Your task to perform on an android device: Search for Italian restaurants on Maps Image 0: 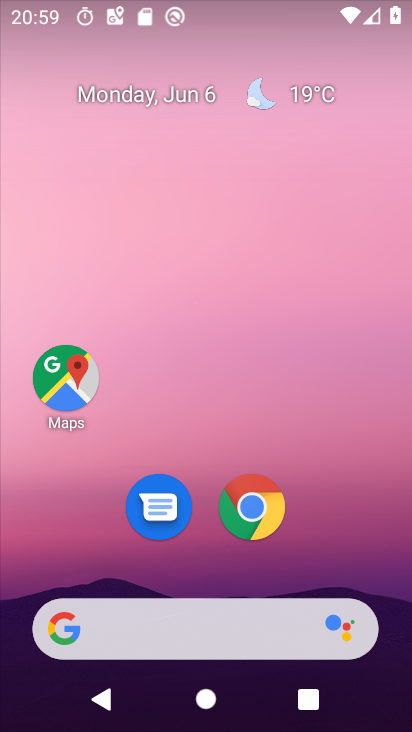
Step 0: press home button
Your task to perform on an android device: Search for Italian restaurants on Maps Image 1: 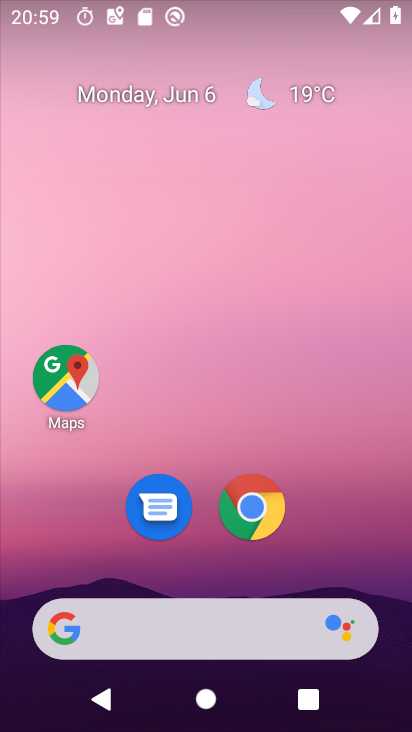
Step 1: click (68, 370)
Your task to perform on an android device: Search for Italian restaurants on Maps Image 2: 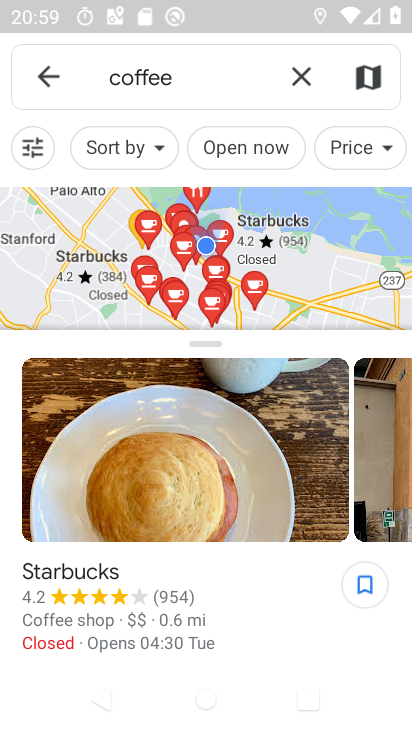
Step 2: click (311, 68)
Your task to perform on an android device: Search for Italian restaurants on Maps Image 3: 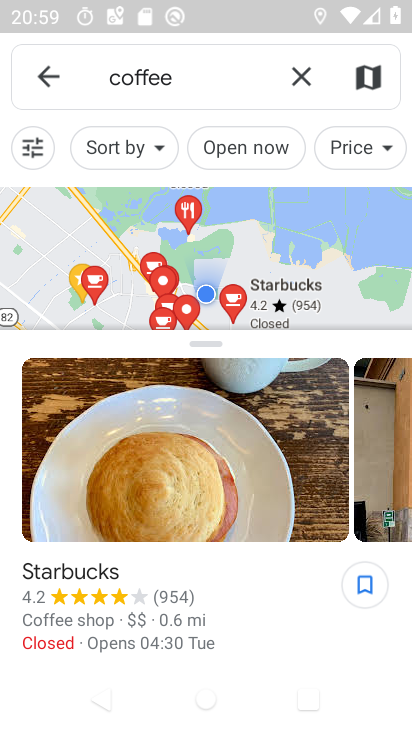
Step 3: click (210, 85)
Your task to perform on an android device: Search for Italian restaurants on Maps Image 4: 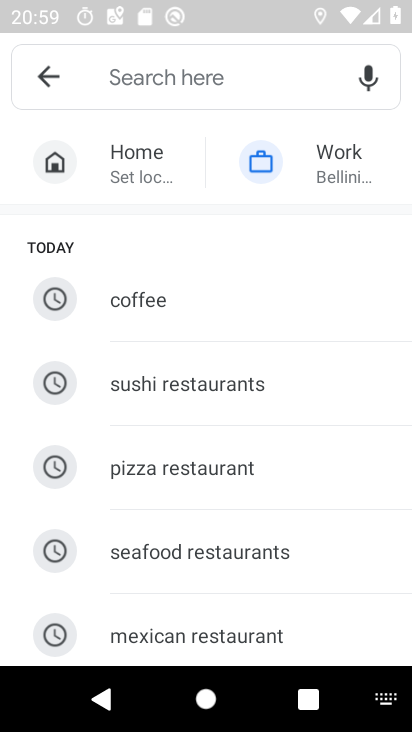
Step 4: type "Italian restaurants"
Your task to perform on an android device: Search for Italian restaurants on Maps Image 5: 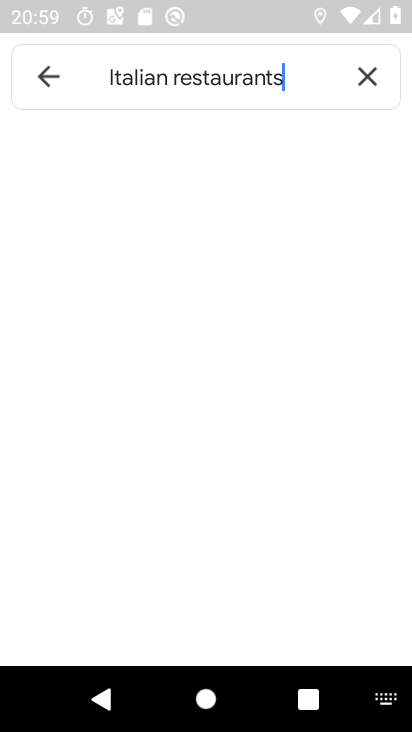
Step 5: type ""
Your task to perform on an android device: Search for Italian restaurants on Maps Image 6: 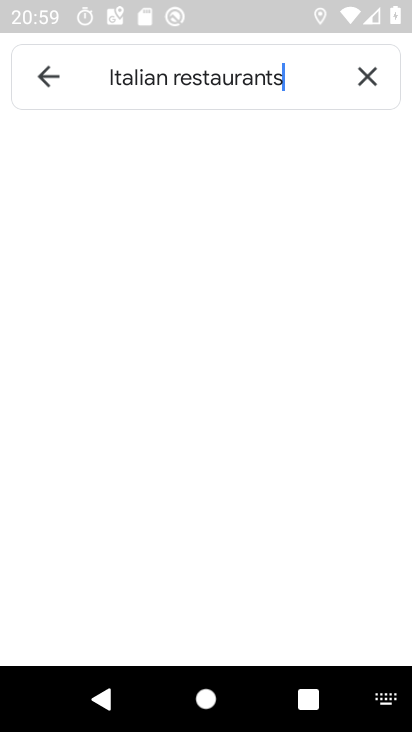
Step 6: click (118, 154)
Your task to perform on an android device: Search for Italian restaurants on Maps Image 7: 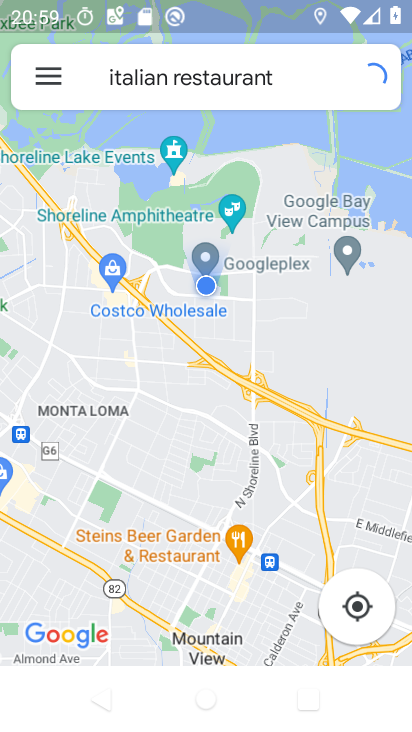
Step 7: task complete